Your task to perform on an android device: Go to CNN.com Image 0: 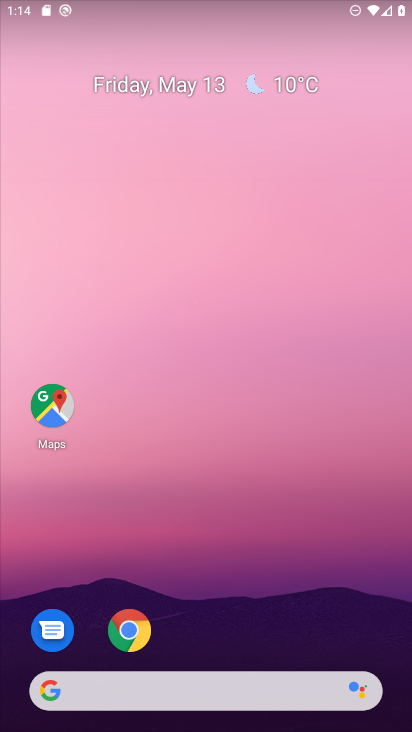
Step 0: click (146, 638)
Your task to perform on an android device: Go to CNN.com Image 1: 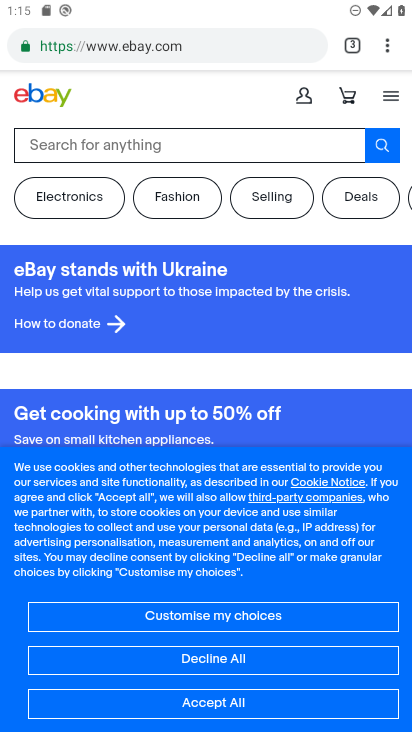
Step 1: click (180, 48)
Your task to perform on an android device: Go to CNN.com Image 2: 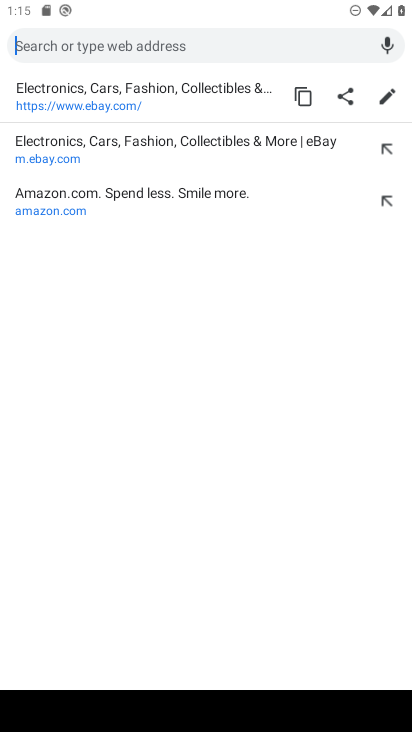
Step 2: type "cnn.com"
Your task to perform on an android device: Go to CNN.com Image 3: 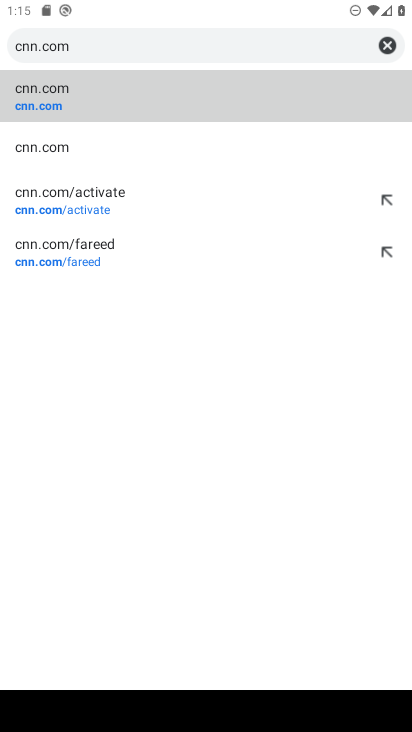
Step 3: click (221, 94)
Your task to perform on an android device: Go to CNN.com Image 4: 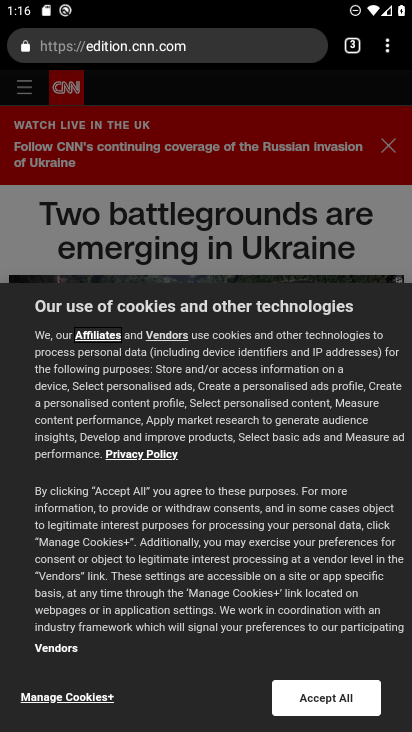
Step 4: task complete